Your task to perform on an android device: Open the stopwatch Image 0: 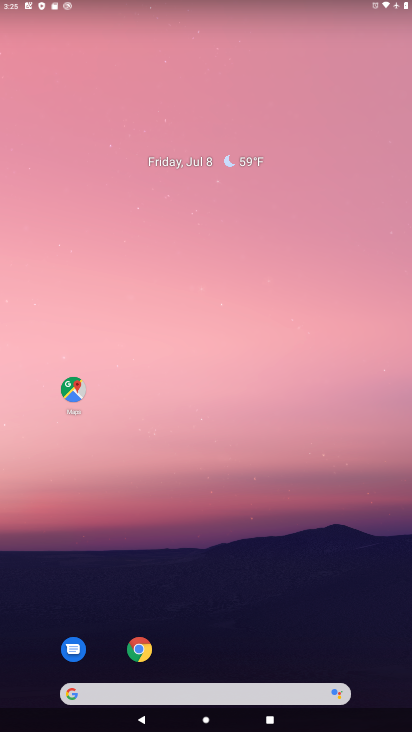
Step 0: drag from (265, 580) to (251, 102)
Your task to perform on an android device: Open the stopwatch Image 1: 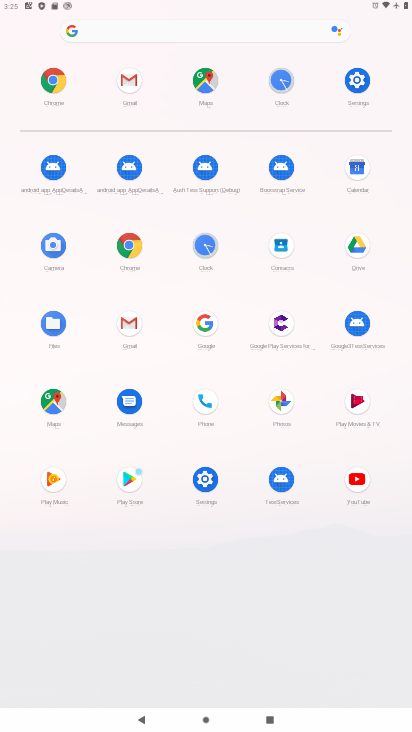
Step 1: click (204, 239)
Your task to perform on an android device: Open the stopwatch Image 2: 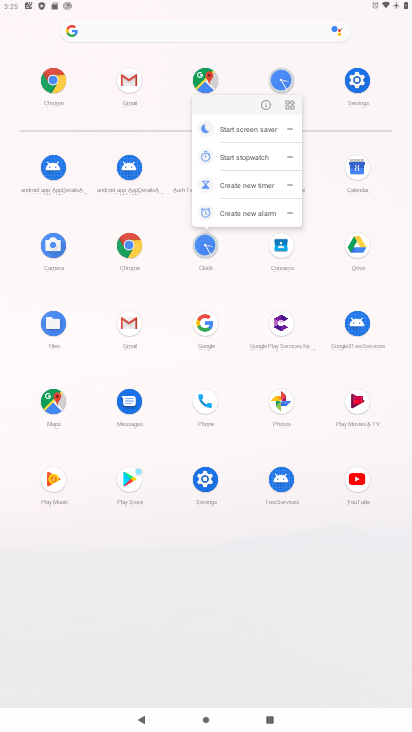
Step 2: click (203, 251)
Your task to perform on an android device: Open the stopwatch Image 3: 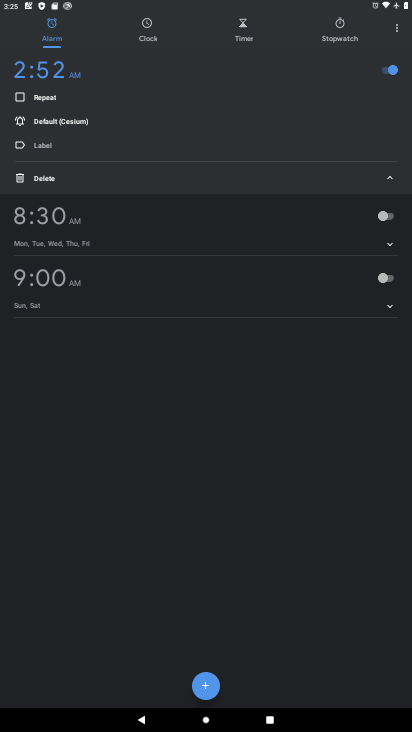
Step 3: click (337, 30)
Your task to perform on an android device: Open the stopwatch Image 4: 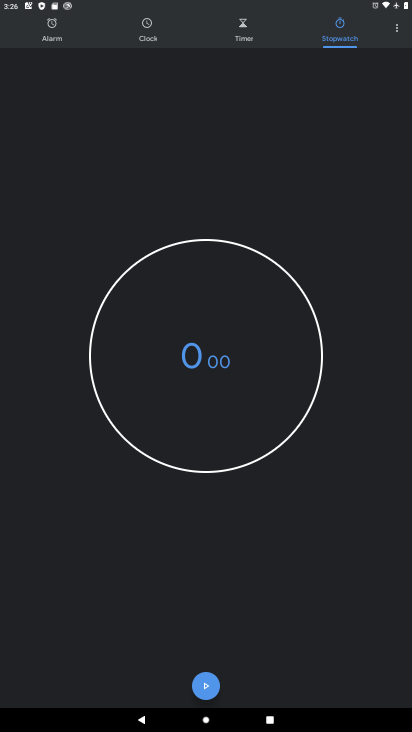
Step 4: task complete